Your task to perform on an android device: turn on improve location accuracy Image 0: 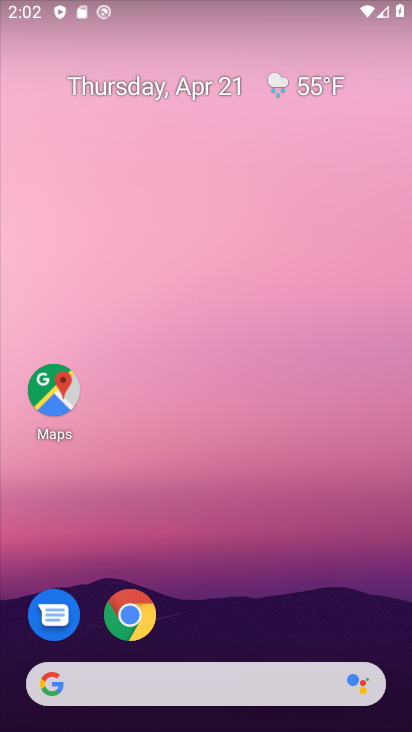
Step 0: drag from (199, 68) to (79, 91)
Your task to perform on an android device: turn on improve location accuracy Image 1: 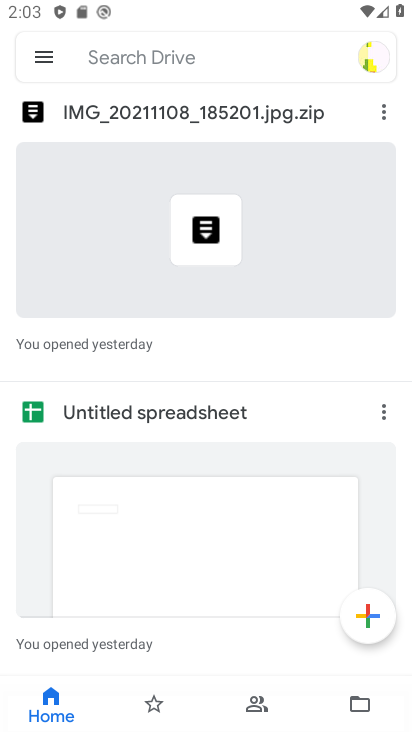
Step 1: press home button
Your task to perform on an android device: turn on improve location accuracy Image 2: 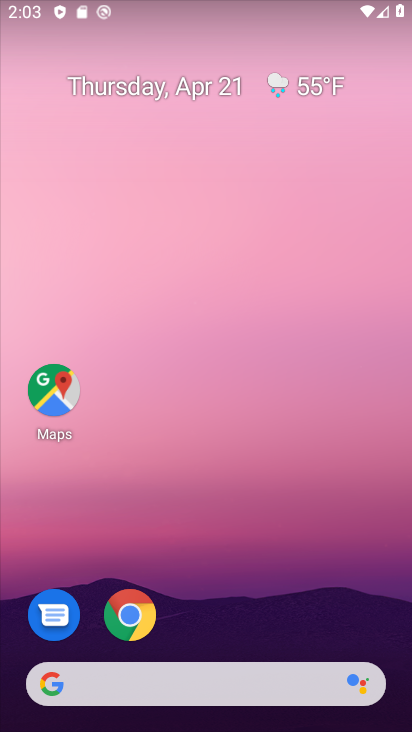
Step 2: drag from (211, 307) to (242, 65)
Your task to perform on an android device: turn on improve location accuracy Image 3: 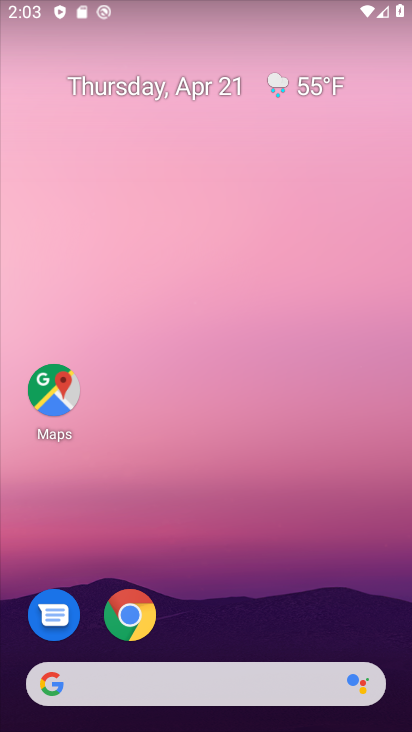
Step 3: drag from (215, 639) to (231, 156)
Your task to perform on an android device: turn on improve location accuracy Image 4: 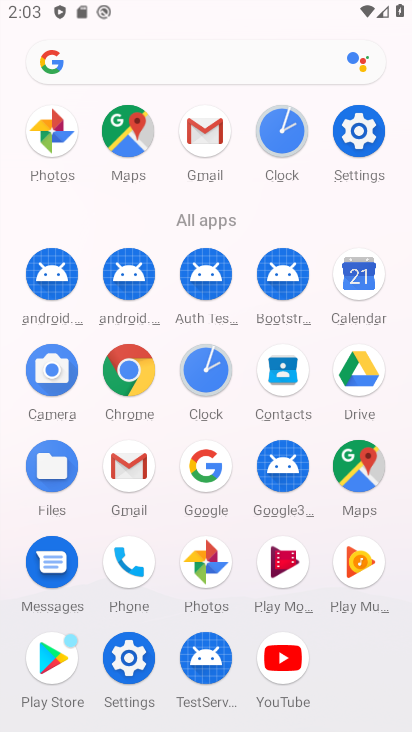
Step 4: click (351, 156)
Your task to perform on an android device: turn on improve location accuracy Image 5: 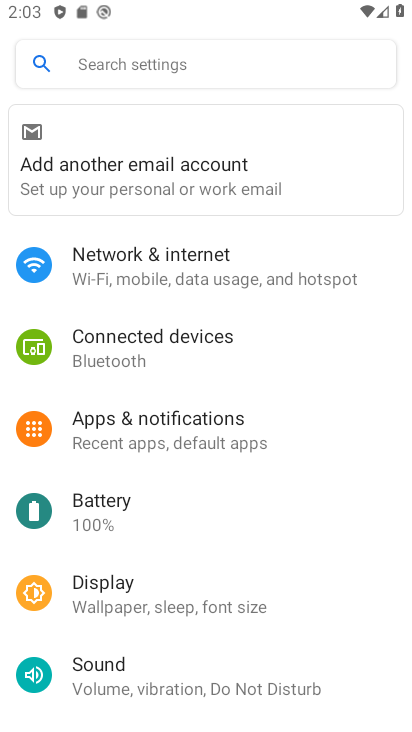
Step 5: drag from (161, 522) to (202, 214)
Your task to perform on an android device: turn on improve location accuracy Image 6: 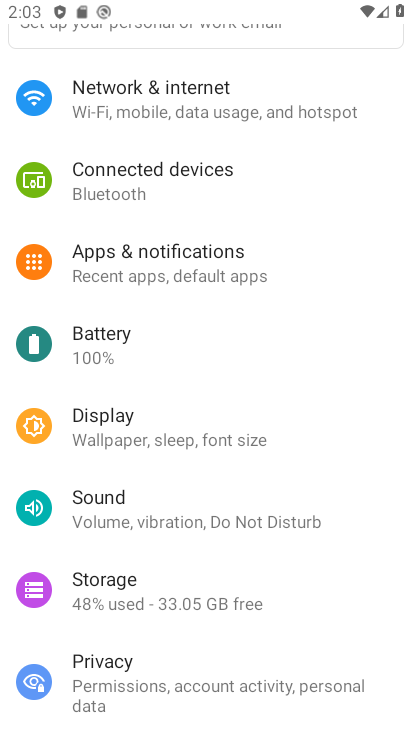
Step 6: drag from (132, 652) to (209, 257)
Your task to perform on an android device: turn on improve location accuracy Image 7: 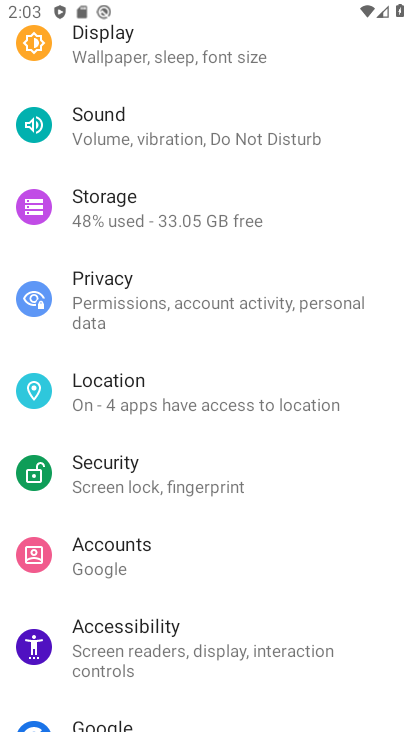
Step 7: drag from (135, 639) to (143, 509)
Your task to perform on an android device: turn on improve location accuracy Image 8: 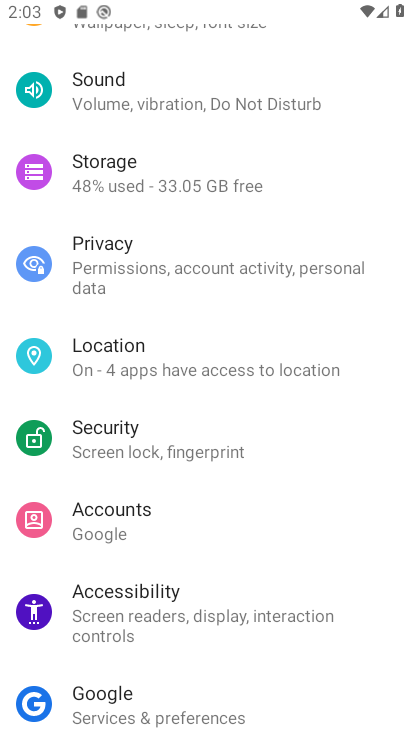
Step 8: click (125, 365)
Your task to perform on an android device: turn on improve location accuracy Image 9: 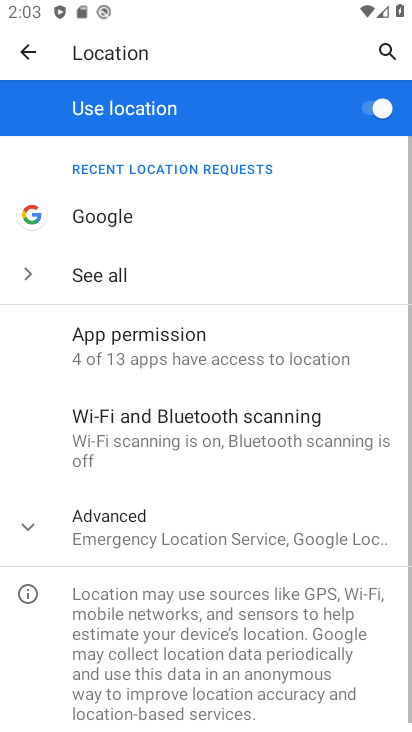
Step 9: click (130, 538)
Your task to perform on an android device: turn on improve location accuracy Image 10: 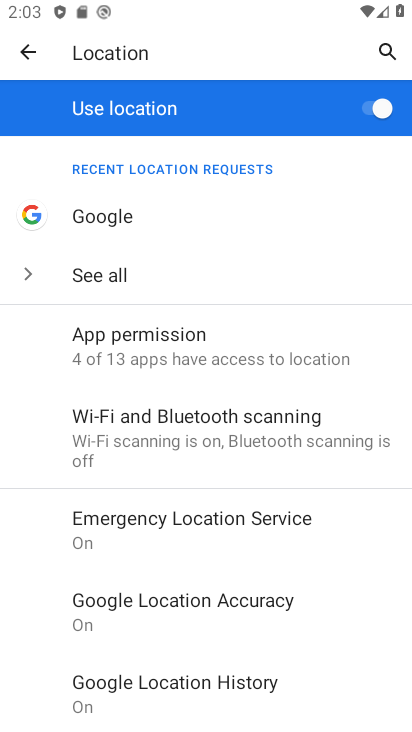
Step 10: click (144, 631)
Your task to perform on an android device: turn on improve location accuracy Image 11: 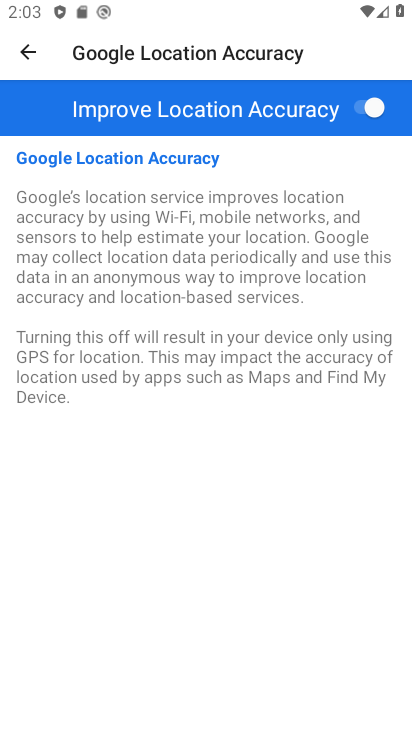
Step 11: task complete